Your task to perform on an android device: Open Wikipedia Image 0: 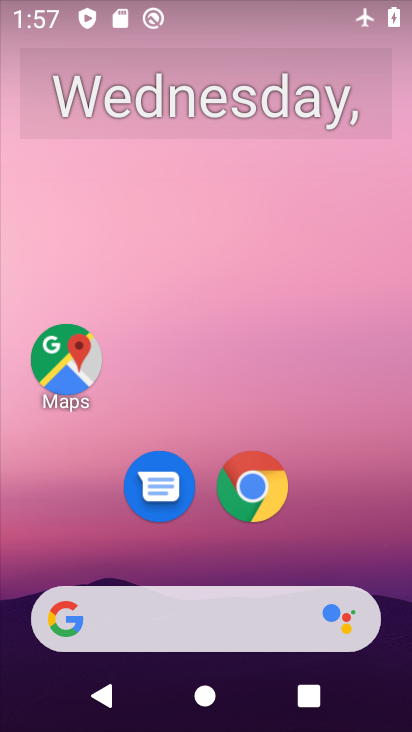
Step 0: click (155, 684)
Your task to perform on an android device: Open Wikipedia Image 1: 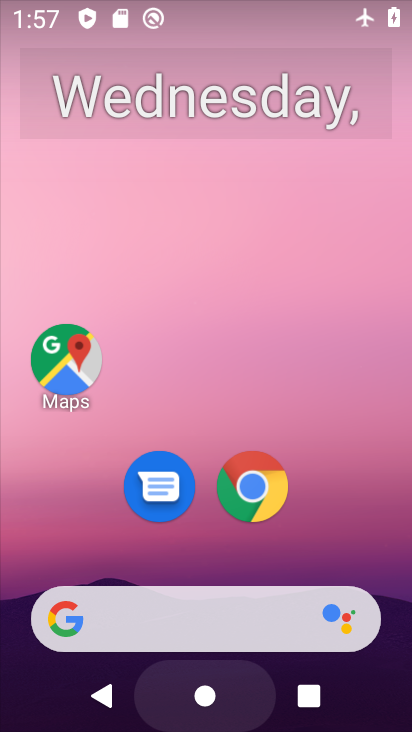
Step 1: click (185, 626)
Your task to perform on an android device: Open Wikipedia Image 2: 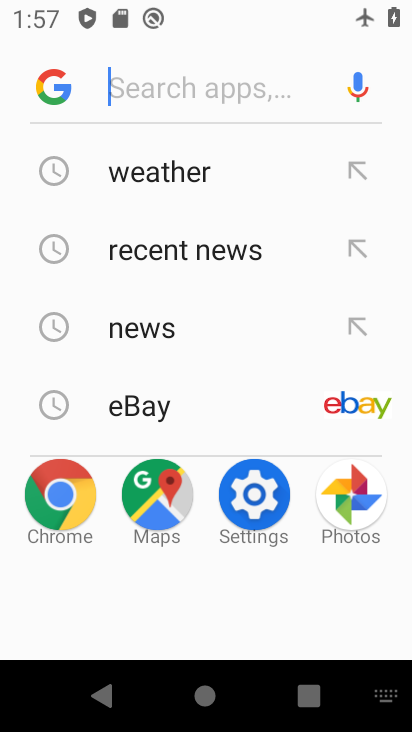
Step 2: type "wikipedia"
Your task to perform on an android device: Open Wikipedia Image 3: 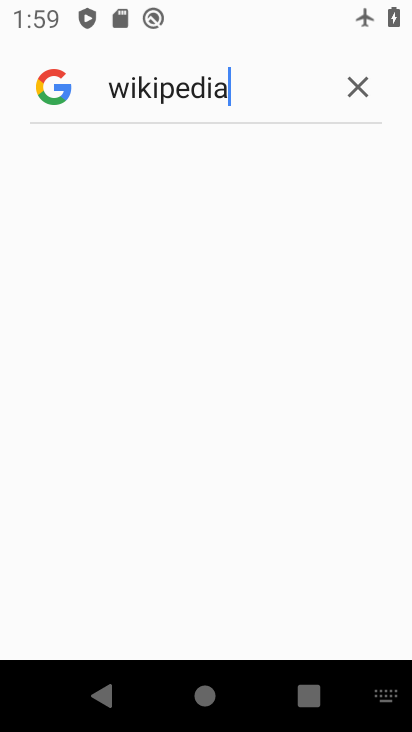
Step 3: task complete